Your task to perform on an android device: change your default location settings in chrome Image 0: 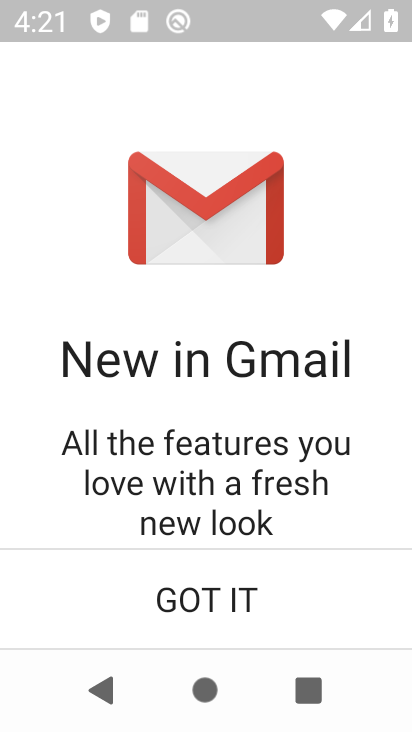
Step 0: press home button
Your task to perform on an android device: change your default location settings in chrome Image 1: 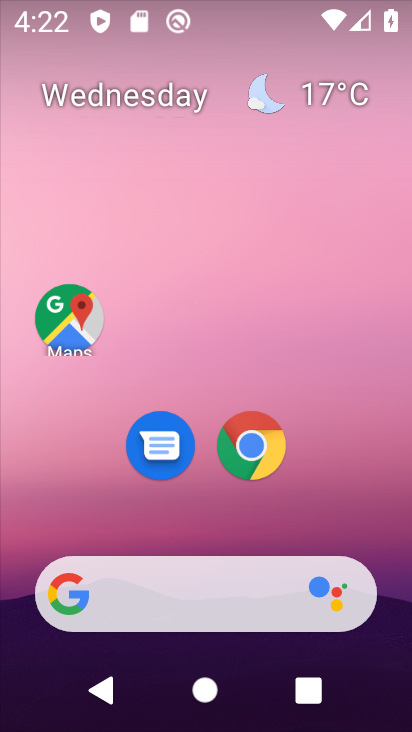
Step 1: click (260, 452)
Your task to perform on an android device: change your default location settings in chrome Image 2: 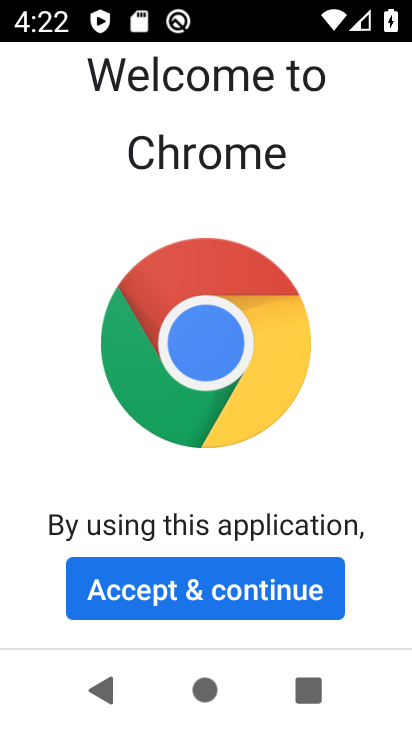
Step 2: click (249, 591)
Your task to perform on an android device: change your default location settings in chrome Image 3: 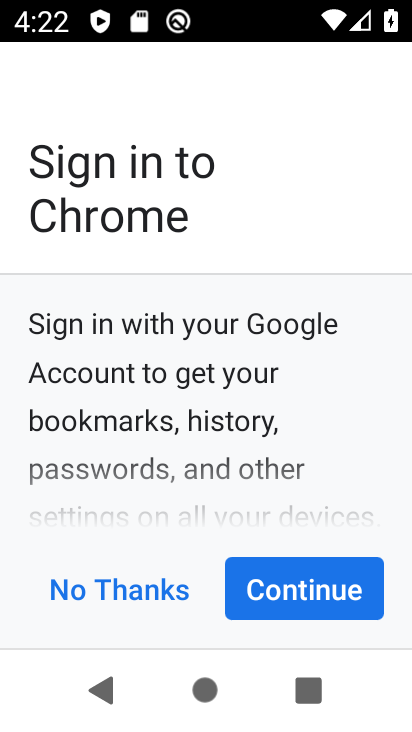
Step 3: click (278, 610)
Your task to perform on an android device: change your default location settings in chrome Image 4: 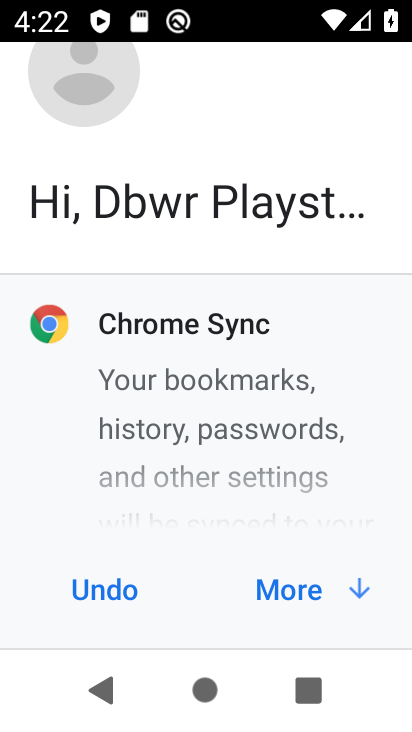
Step 4: click (286, 592)
Your task to perform on an android device: change your default location settings in chrome Image 5: 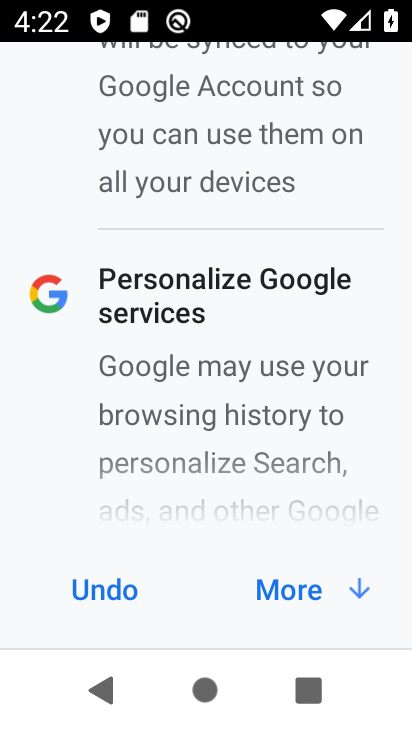
Step 5: click (286, 592)
Your task to perform on an android device: change your default location settings in chrome Image 6: 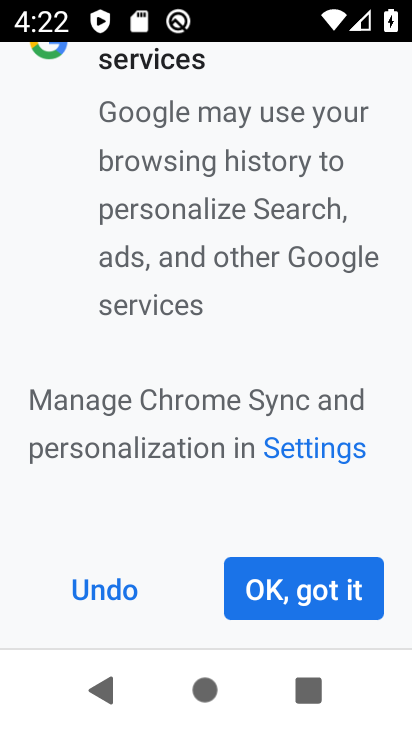
Step 6: click (286, 592)
Your task to perform on an android device: change your default location settings in chrome Image 7: 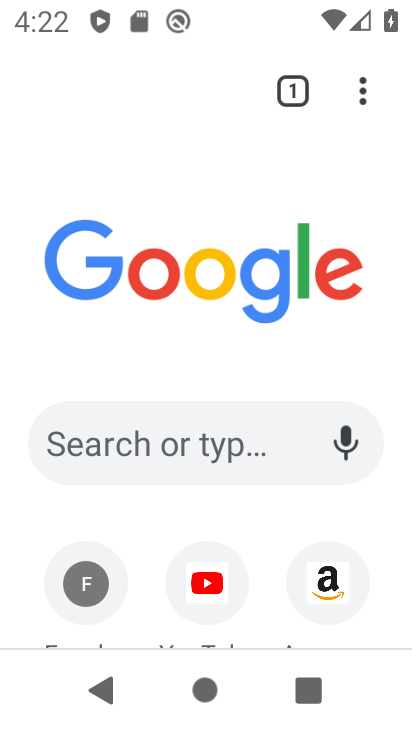
Step 7: click (359, 108)
Your task to perform on an android device: change your default location settings in chrome Image 8: 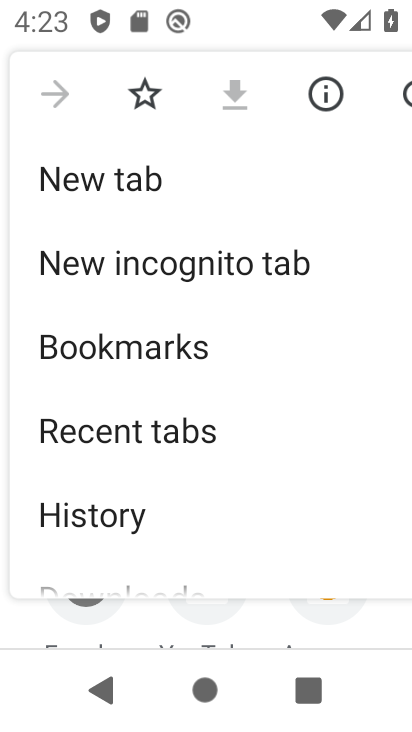
Step 8: drag from (203, 575) to (169, 153)
Your task to perform on an android device: change your default location settings in chrome Image 9: 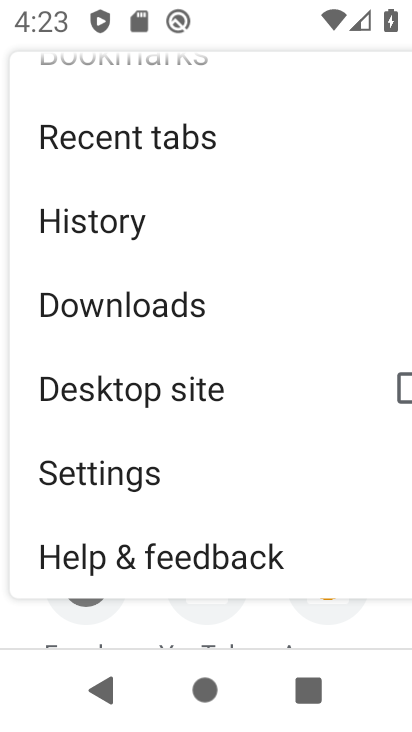
Step 9: drag from (172, 520) to (155, 151)
Your task to perform on an android device: change your default location settings in chrome Image 10: 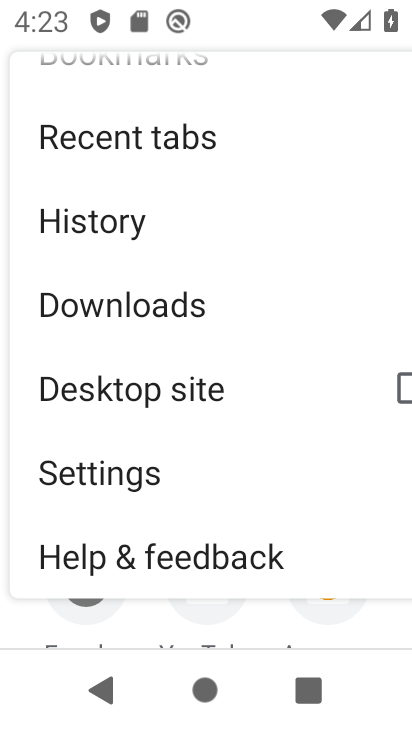
Step 10: click (174, 465)
Your task to perform on an android device: change your default location settings in chrome Image 11: 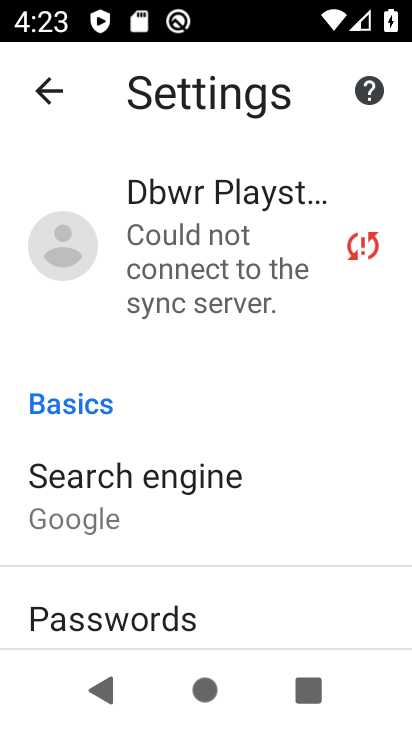
Step 11: drag from (197, 615) to (169, 215)
Your task to perform on an android device: change your default location settings in chrome Image 12: 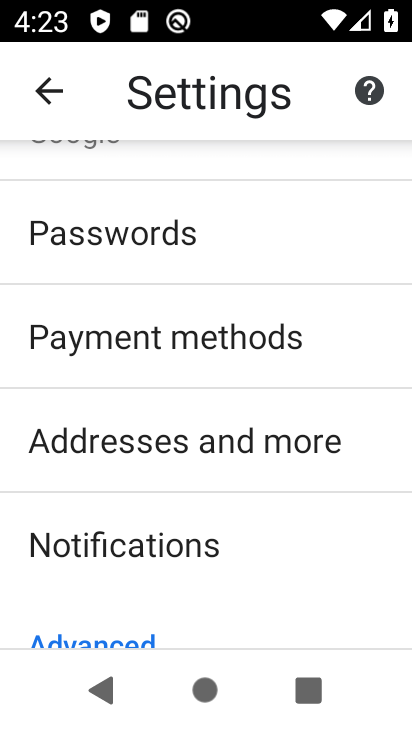
Step 12: drag from (191, 466) to (182, 181)
Your task to perform on an android device: change your default location settings in chrome Image 13: 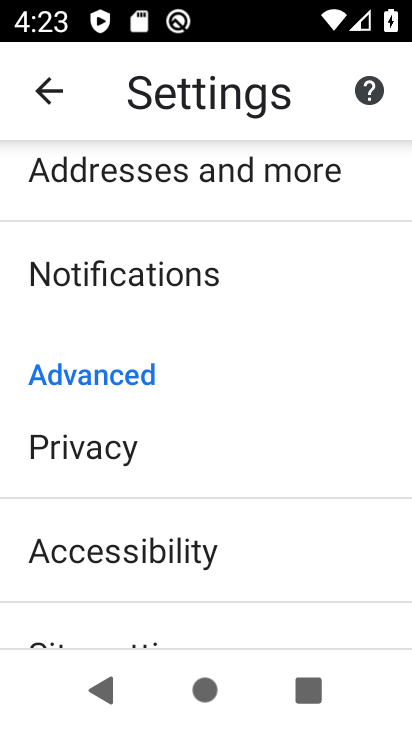
Step 13: drag from (188, 532) to (179, 256)
Your task to perform on an android device: change your default location settings in chrome Image 14: 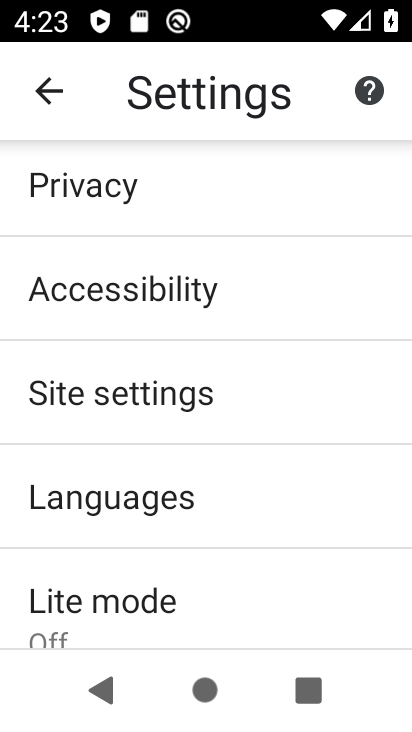
Step 14: click (163, 410)
Your task to perform on an android device: change your default location settings in chrome Image 15: 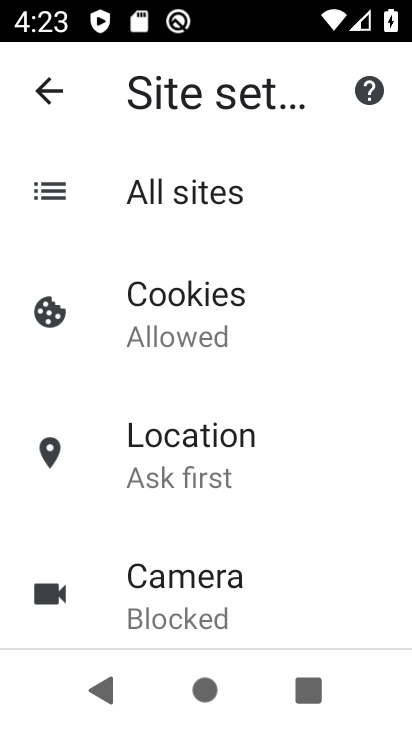
Step 15: click (203, 460)
Your task to perform on an android device: change your default location settings in chrome Image 16: 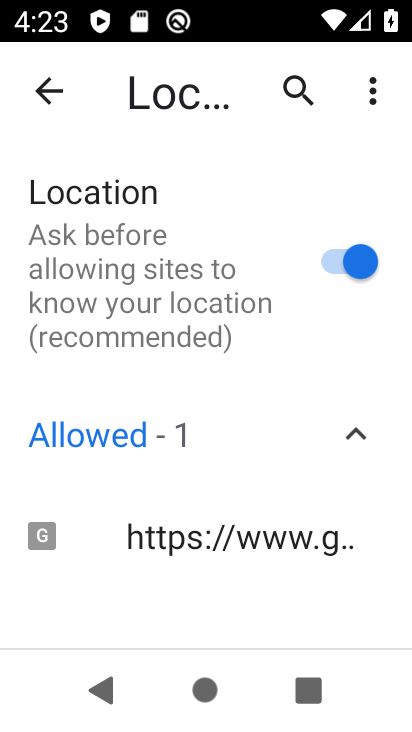
Step 16: task complete